Your task to perform on an android device: see sites visited before in the chrome app Image 0: 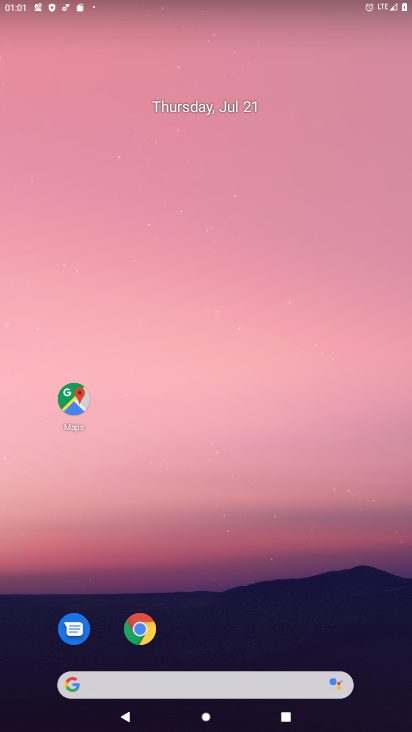
Step 0: drag from (344, 588) to (226, 43)
Your task to perform on an android device: see sites visited before in the chrome app Image 1: 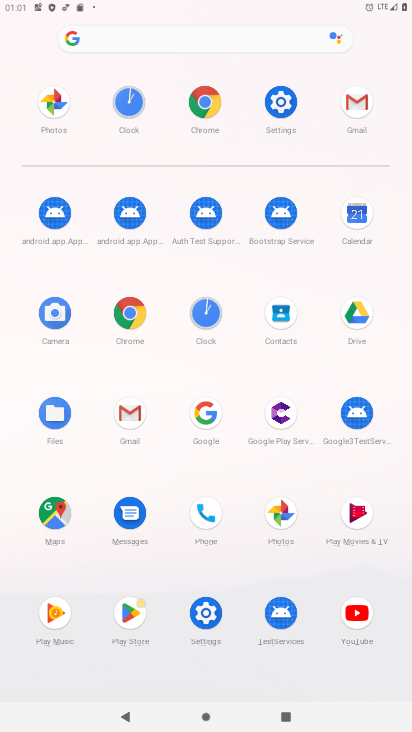
Step 1: click (129, 314)
Your task to perform on an android device: see sites visited before in the chrome app Image 2: 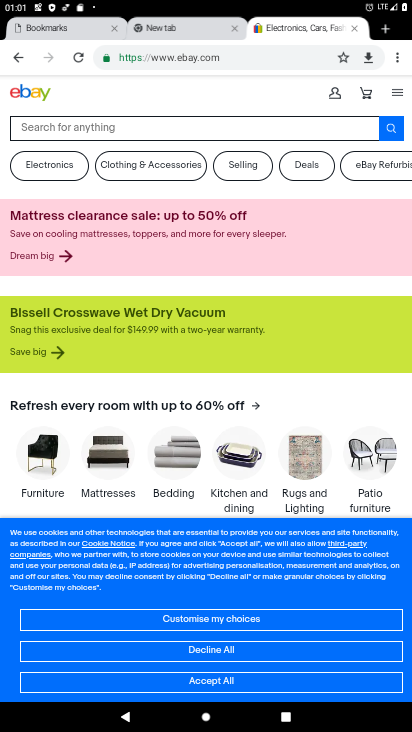
Step 2: task complete